Your task to perform on an android device: check android version Image 0: 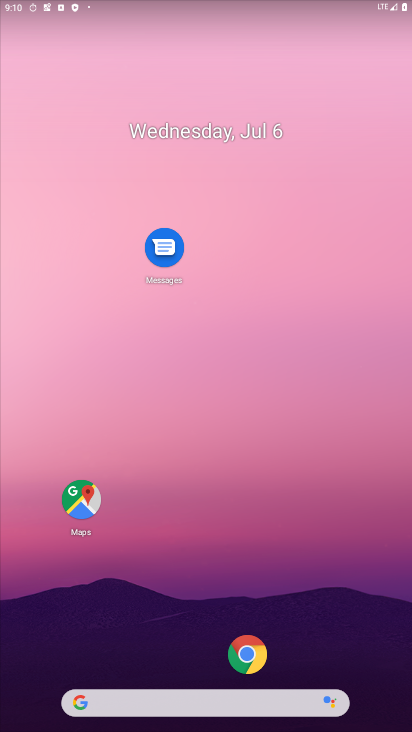
Step 0: drag from (233, 7) to (263, 487)
Your task to perform on an android device: check android version Image 1: 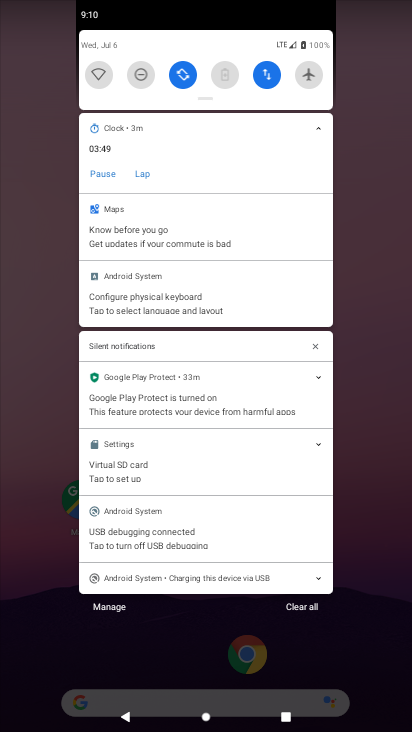
Step 1: drag from (197, 47) to (212, 574)
Your task to perform on an android device: check android version Image 2: 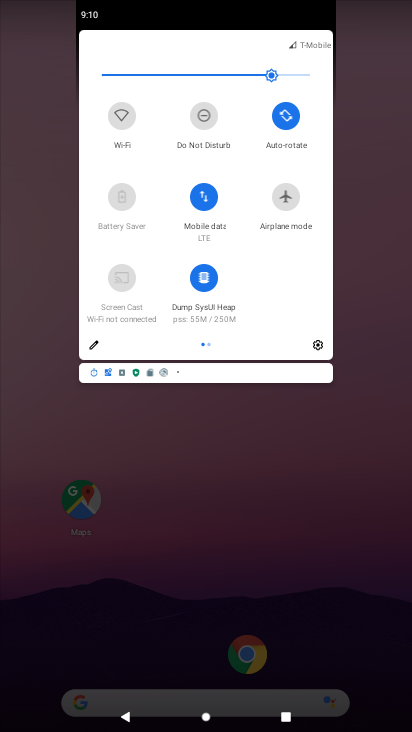
Step 2: click (318, 343)
Your task to perform on an android device: check android version Image 3: 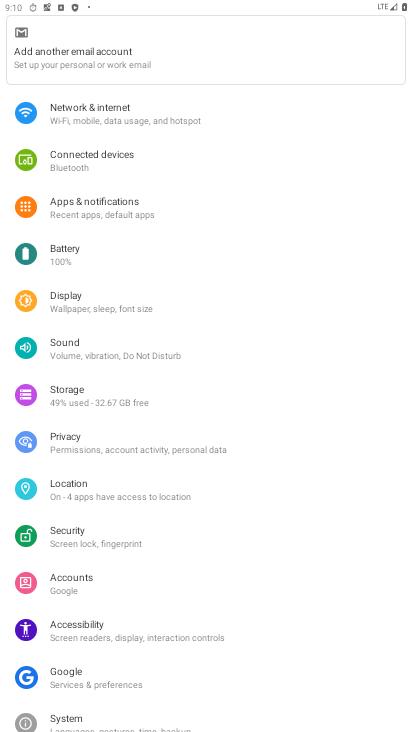
Step 3: drag from (118, 673) to (177, 239)
Your task to perform on an android device: check android version Image 4: 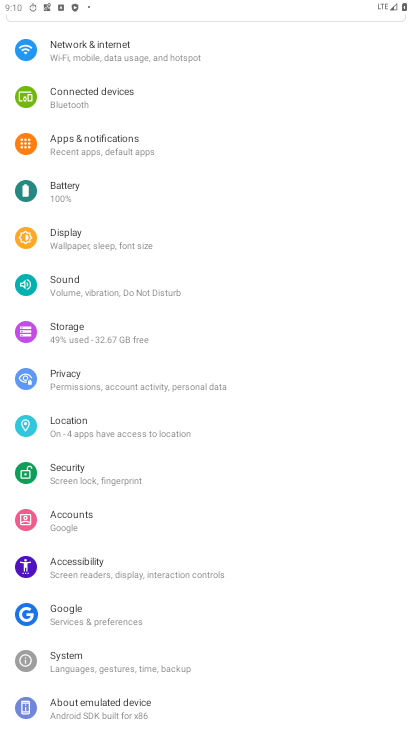
Step 4: click (148, 697)
Your task to perform on an android device: check android version Image 5: 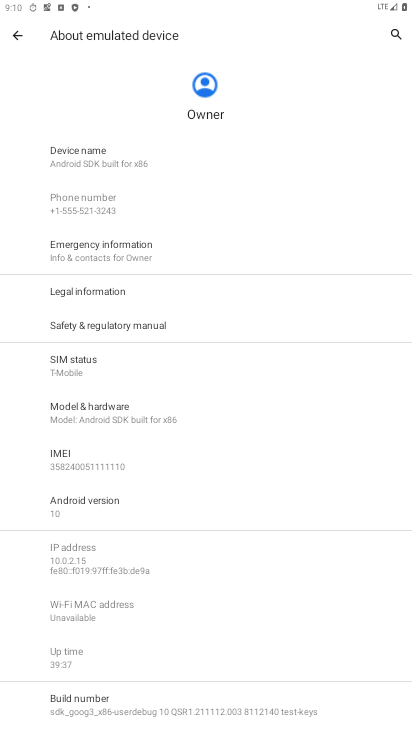
Step 5: click (172, 508)
Your task to perform on an android device: check android version Image 6: 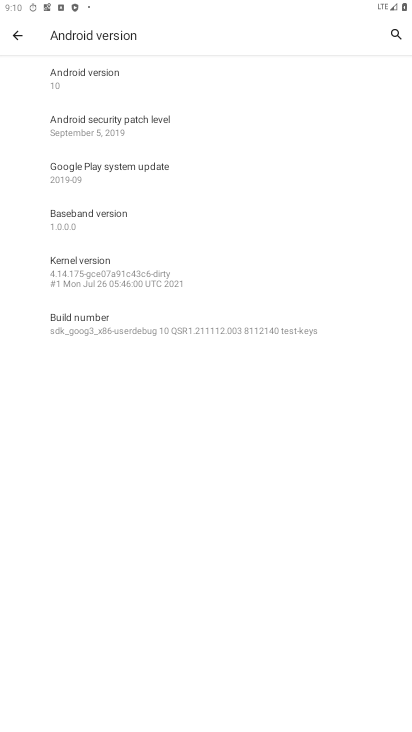
Step 6: task complete